Your task to perform on an android device: toggle airplane mode Image 0: 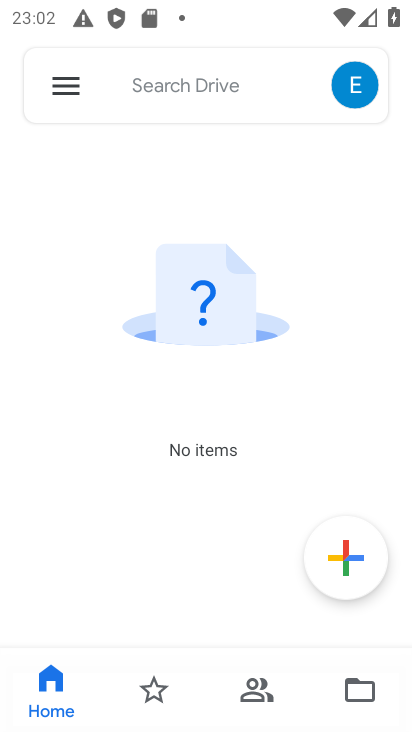
Step 0: drag from (265, 670) to (192, 350)
Your task to perform on an android device: toggle airplane mode Image 1: 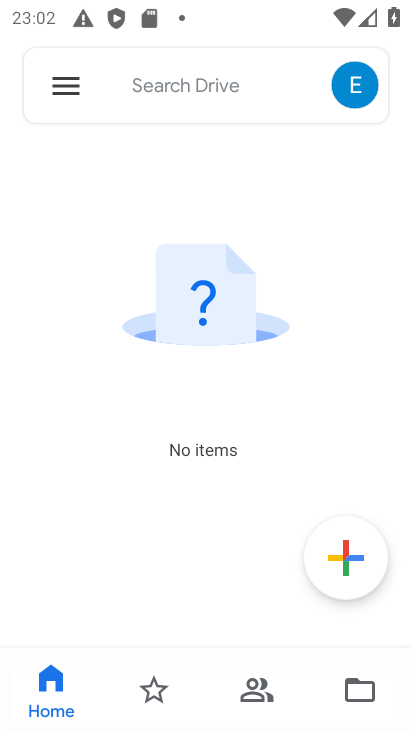
Step 1: press back button
Your task to perform on an android device: toggle airplane mode Image 2: 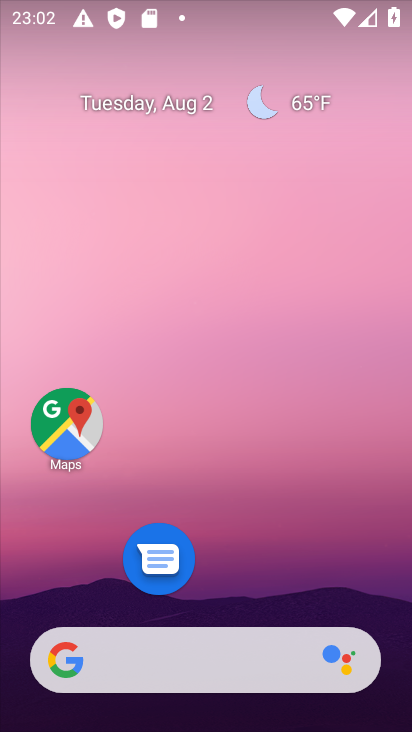
Step 2: drag from (188, 483) to (159, 218)
Your task to perform on an android device: toggle airplane mode Image 3: 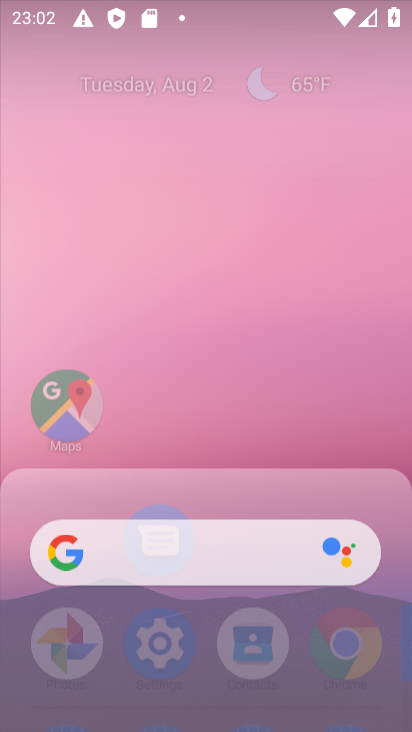
Step 3: drag from (162, 489) to (162, 339)
Your task to perform on an android device: toggle airplane mode Image 4: 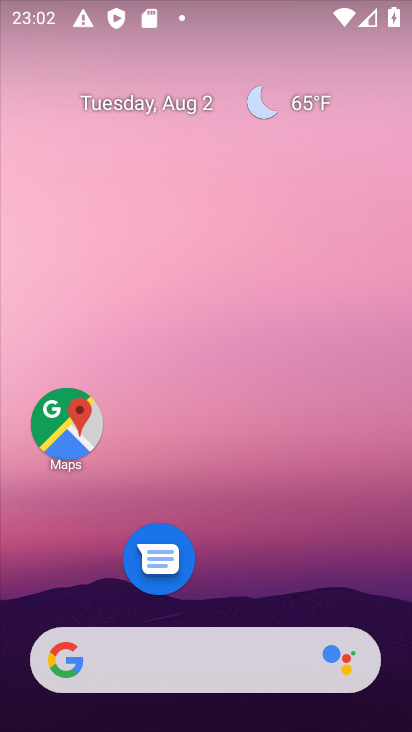
Step 4: drag from (237, 659) to (183, 272)
Your task to perform on an android device: toggle airplane mode Image 5: 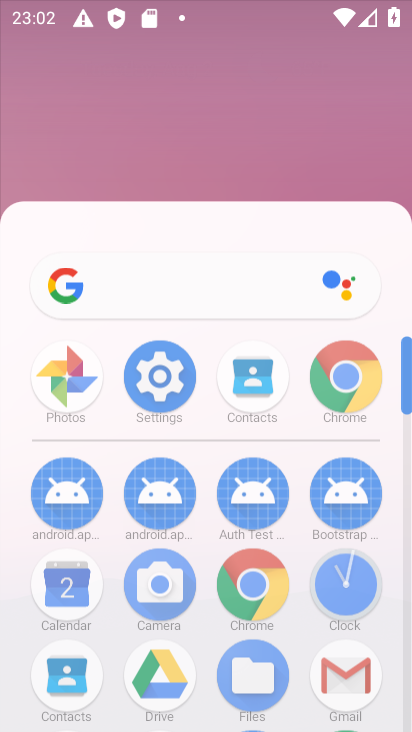
Step 5: drag from (252, 511) to (246, 272)
Your task to perform on an android device: toggle airplane mode Image 6: 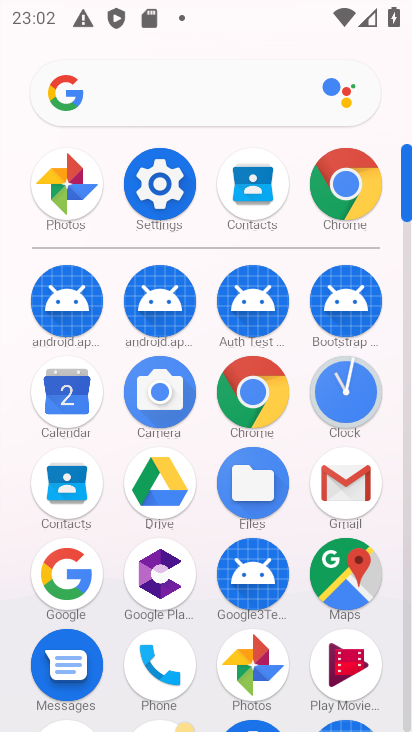
Step 6: drag from (263, 544) to (247, 249)
Your task to perform on an android device: toggle airplane mode Image 7: 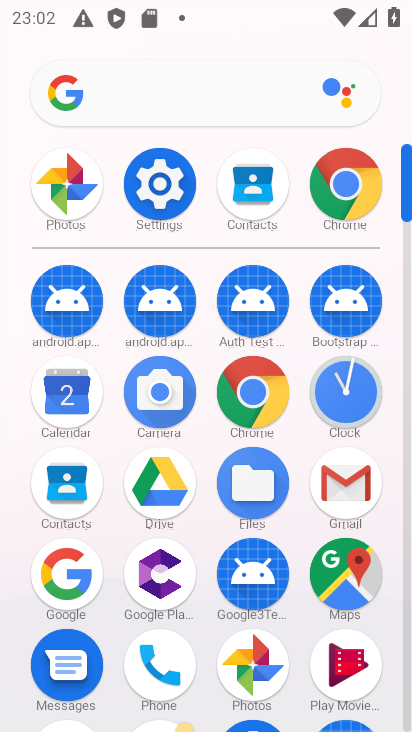
Step 7: click (162, 200)
Your task to perform on an android device: toggle airplane mode Image 8: 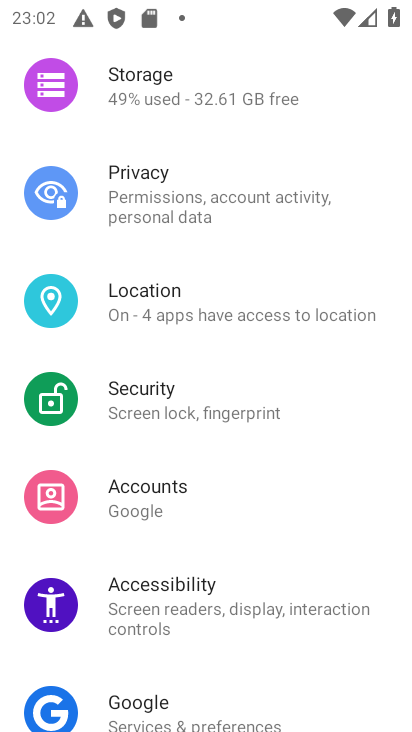
Step 8: drag from (156, 140) to (180, 526)
Your task to perform on an android device: toggle airplane mode Image 9: 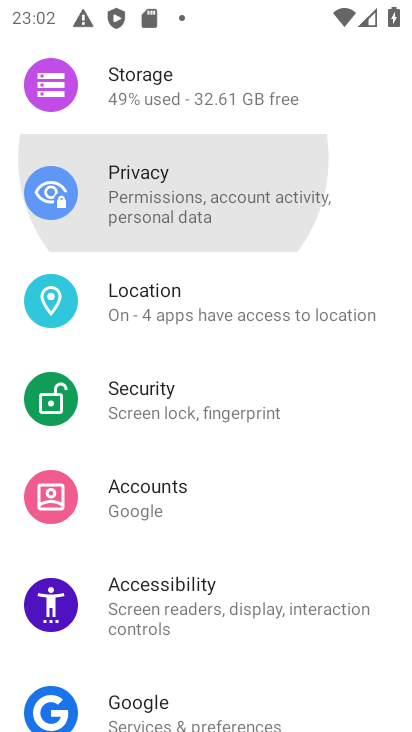
Step 9: drag from (147, 252) to (169, 507)
Your task to perform on an android device: toggle airplane mode Image 10: 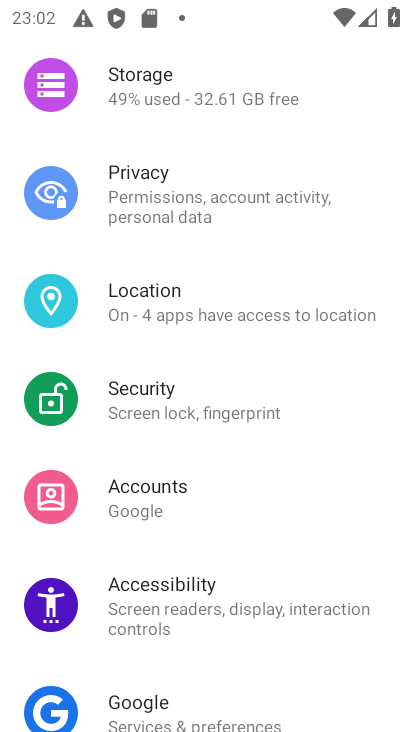
Step 10: drag from (169, 199) to (218, 523)
Your task to perform on an android device: toggle airplane mode Image 11: 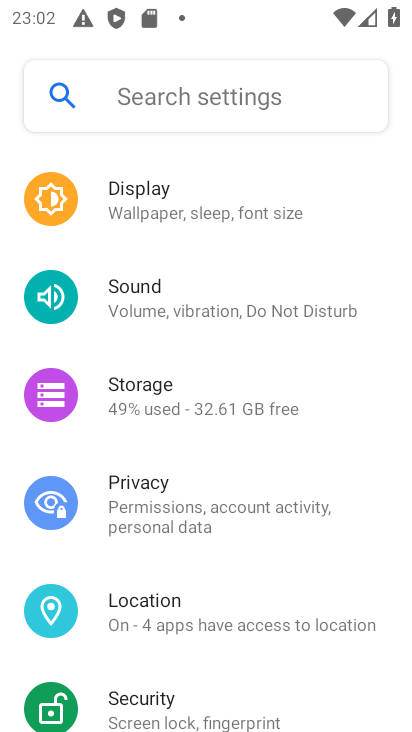
Step 11: drag from (157, 149) to (199, 588)
Your task to perform on an android device: toggle airplane mode Image 12: 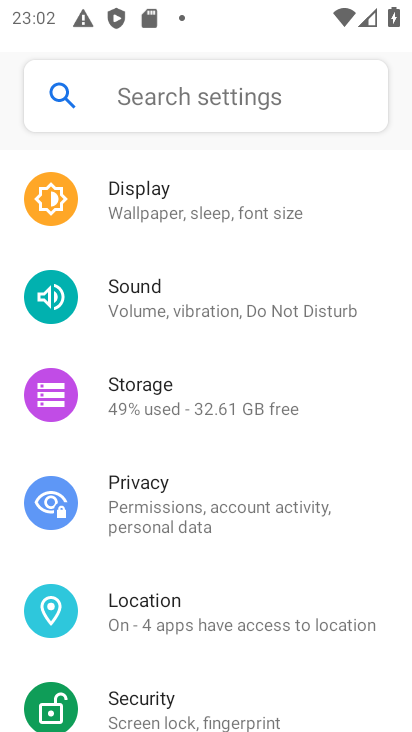
Step 12: drag from (209, 200) to (234, 639)
Your task to perform on an android device: toggle airplane mode Image 13: 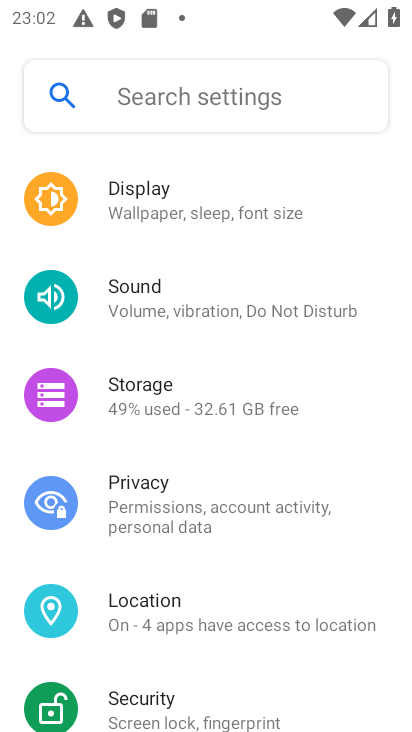
Step 13: drag from (228, 267) to (270, 546)
Your task to perform on an android device: toggle airplane mode Image 14: 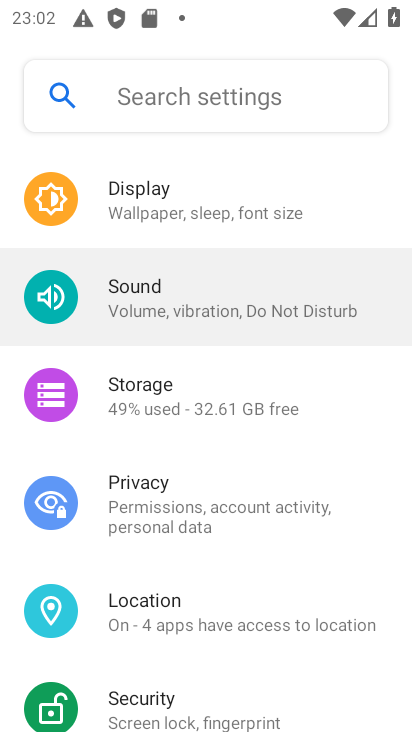
Step 14: drag from (188, 231) to (239, 604)
Your task to perform on an android device: toggle airplane mode Image 15: 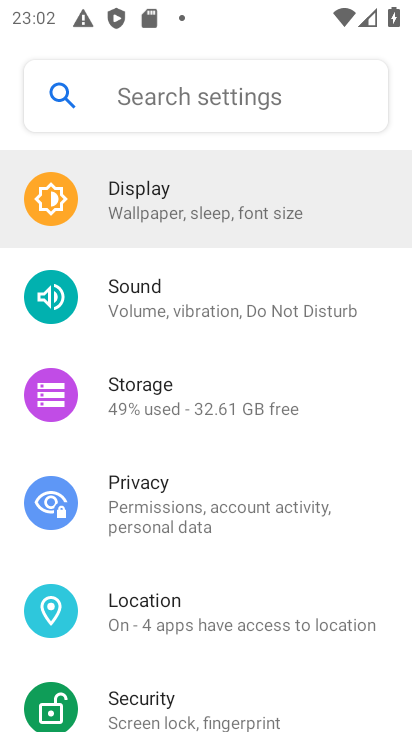
Step 15: drag from (195, 219) to (146, 586)
Your task to perform on an android device: toggle airplane mode Image 16: 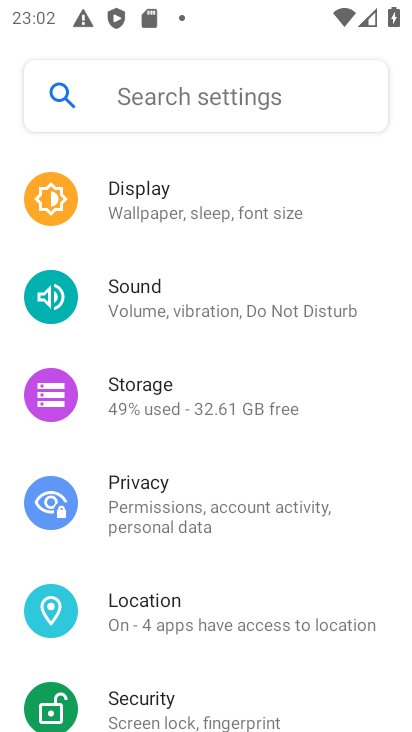
Step 16: drag from (99, 154) to (102, 601)
Your task to perform on an android device: toggle airplane mode Image 17: 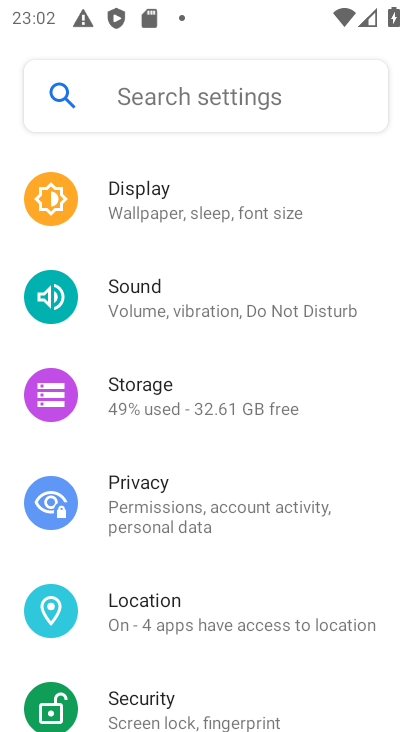
Step 17: drag from (228, 286) to (310, 623)
Your task to perform on an android device: toggle airplane mode Image 18: 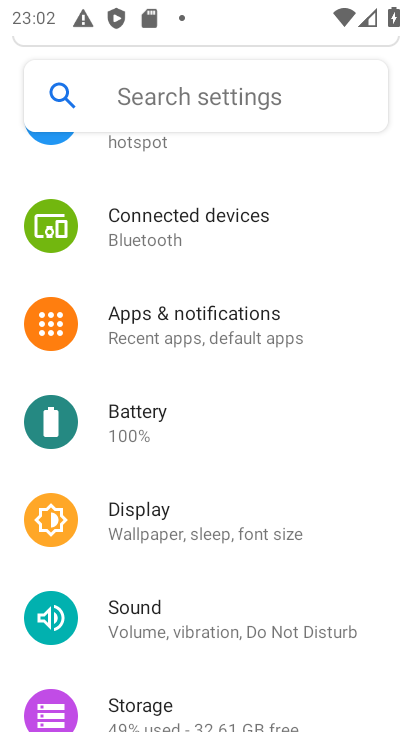
Step 18: drag from (353, 254) to (397, 502)
Your task to perform on an android device: toggle airplane mode Image 19: 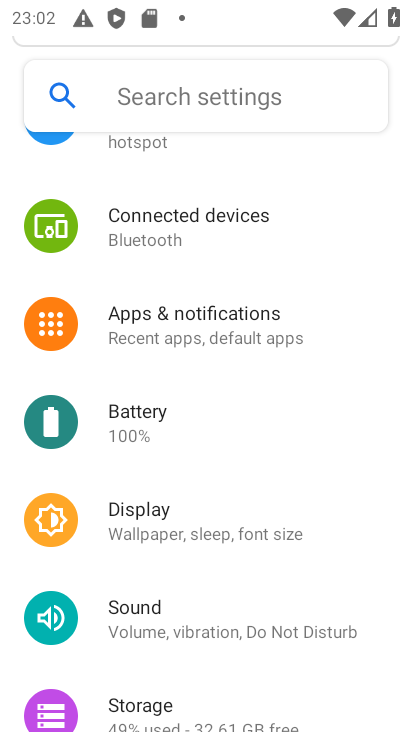
Step 19: drag from (266, 216) to (297, 638)
Your task to perform on an android device: toggle airplane mode Image 20: 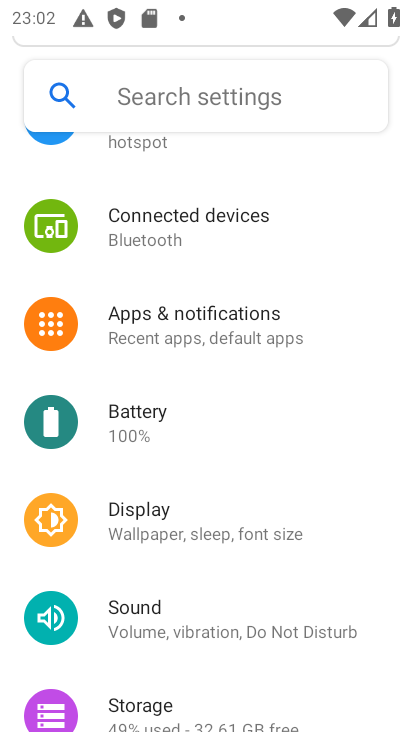
Step 20: drag from (276, 161) to (321, 526)
Your task to perform on an android device: toggle airplane mode Image 21: 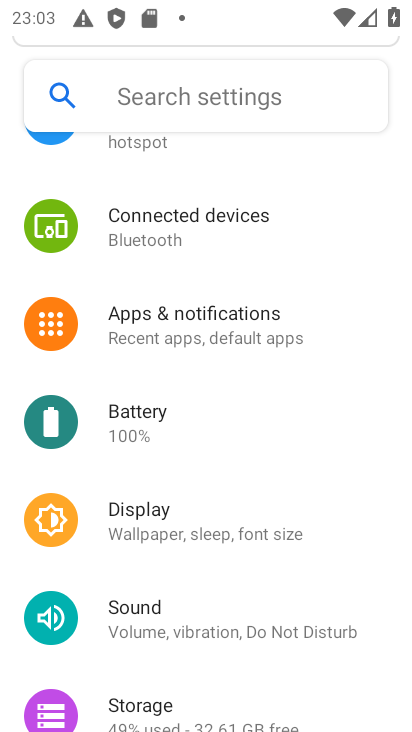
Step 21: drag from (318, 213) to (345, 474)
Your task to perform on an android device: toggle airplane mode Image 22: 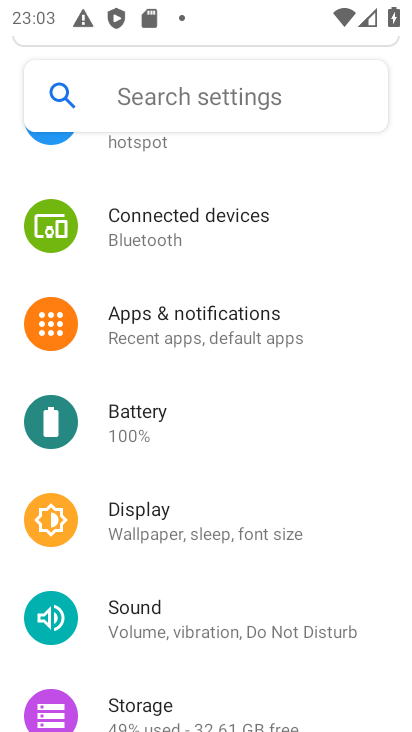
Step 22: drag from (343, 125) to (344, 531)
Your task to perform on an android device: toggle airplane mode Image 23: 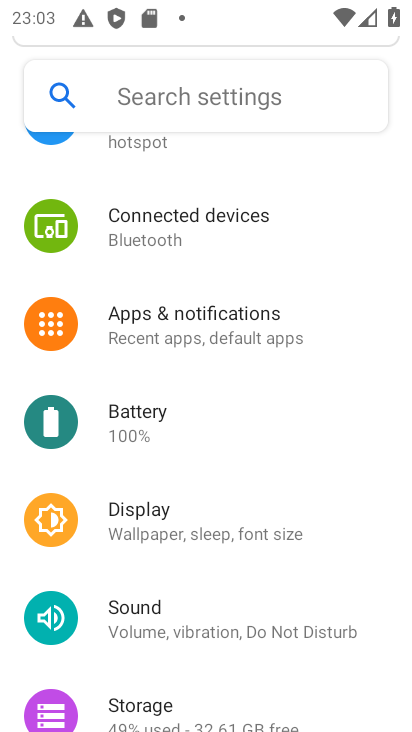
Step 23: drag from (292, 146) to (272, 573)
Your task to perform on an android device: toggle airplane mode Image 24: 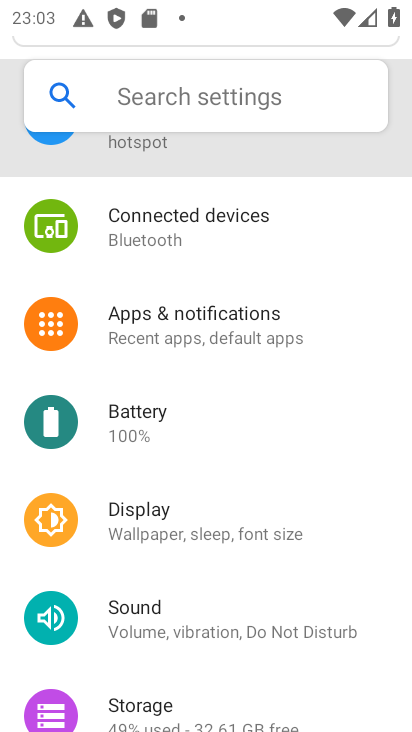
Step 24: drag from (182, 201) to (183, 626)
Your task to perform on an android device: toggle airplane mode Image 25: 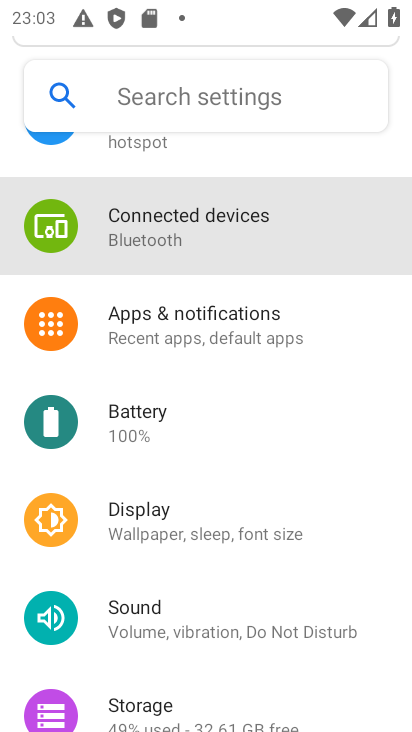
Step 25: drag from (254, 255) to (282, 631)
Your task to perform on an android device: toggle airplane mode Image 26: 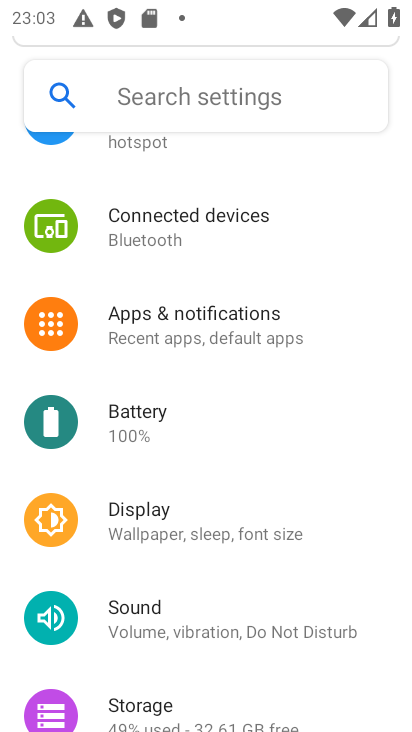
Step 26: drag from (346, 192) to (381, 527)
Your task to perform on an android device: toggle airplane mode Image 27: 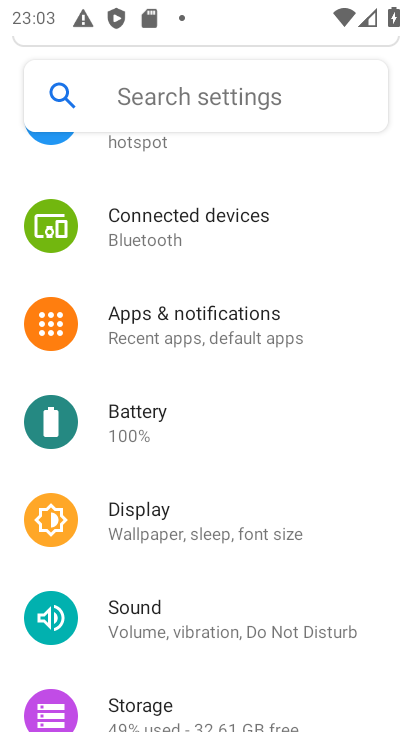
Step 27: drag from (302, 157) to (326, 517)
Your task to perform on an android device: toggle airplane mode Image 28: 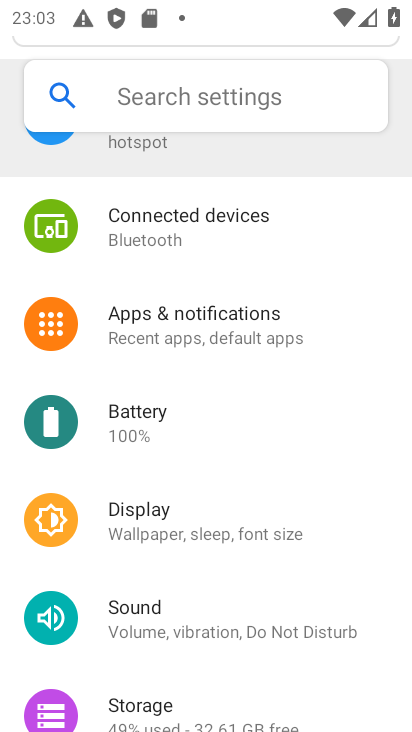
Step 28: drag from (275, 142) to (276, 526)
Your task to perform on an android device: toggle airplane mode Image 29: 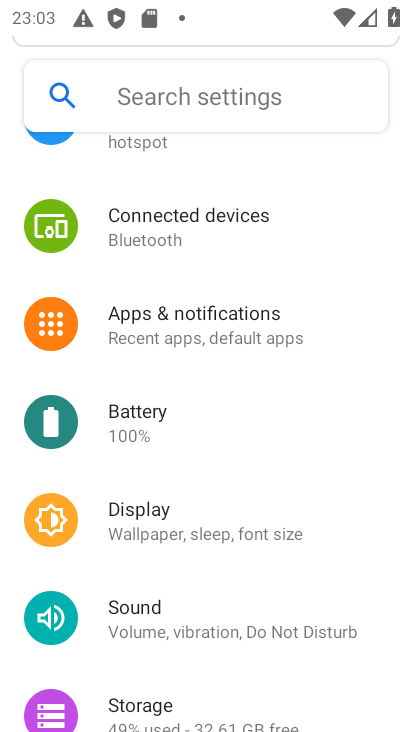
Step 29: click (130, 134)
Your task to perform on an android device: toggle airplane mode Image 30: 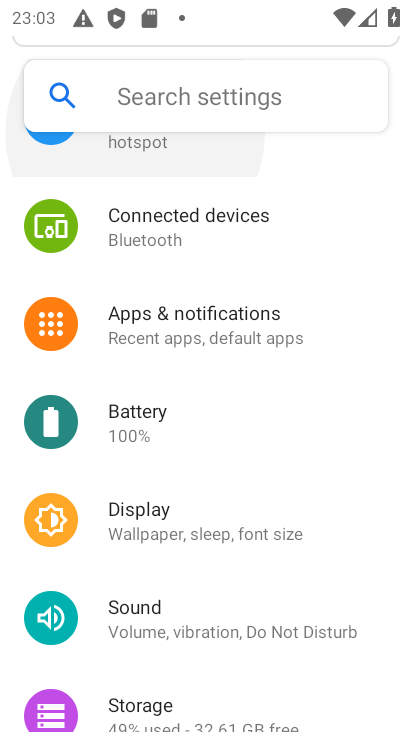
Step 30: click (128, 140)
Your task to perform on an android device: toggle airplane mode Image 31: 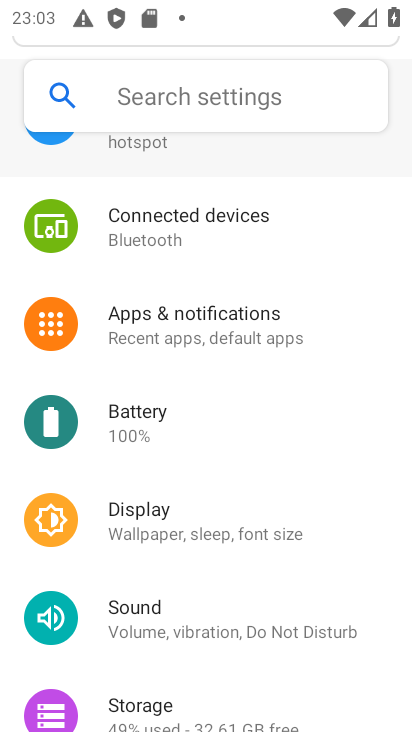
Step 31: click (128, 140)
Your task to perform on an android device: toggle airplane mode Image 32: 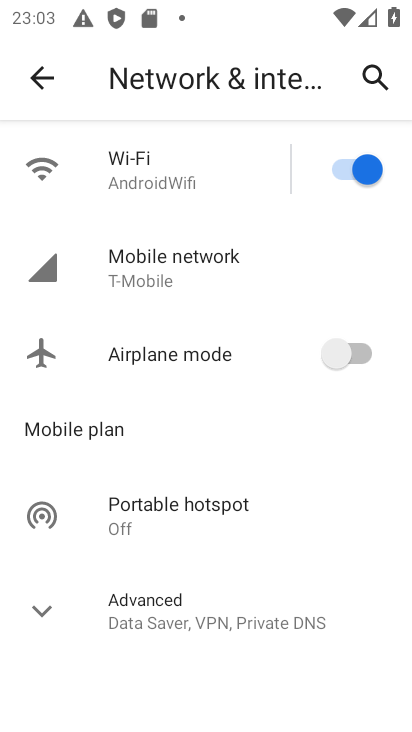
Step 32: click (346, 345)
Your task to perform on an android device: toggle airplane mode Image 33: 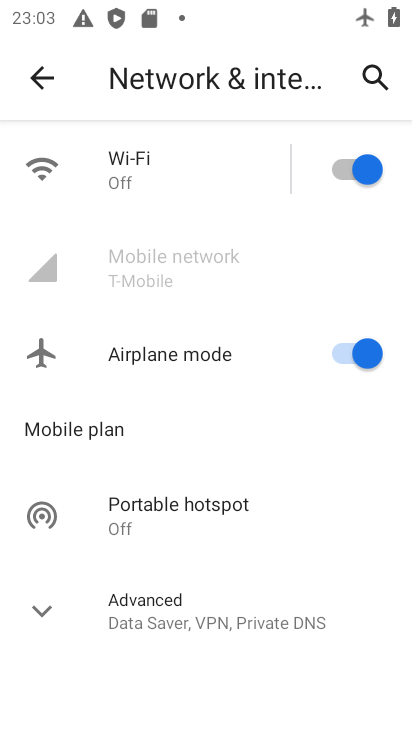
Step 33: task complete